Your task to perform on an android device: Open the stopwatch Image 0: 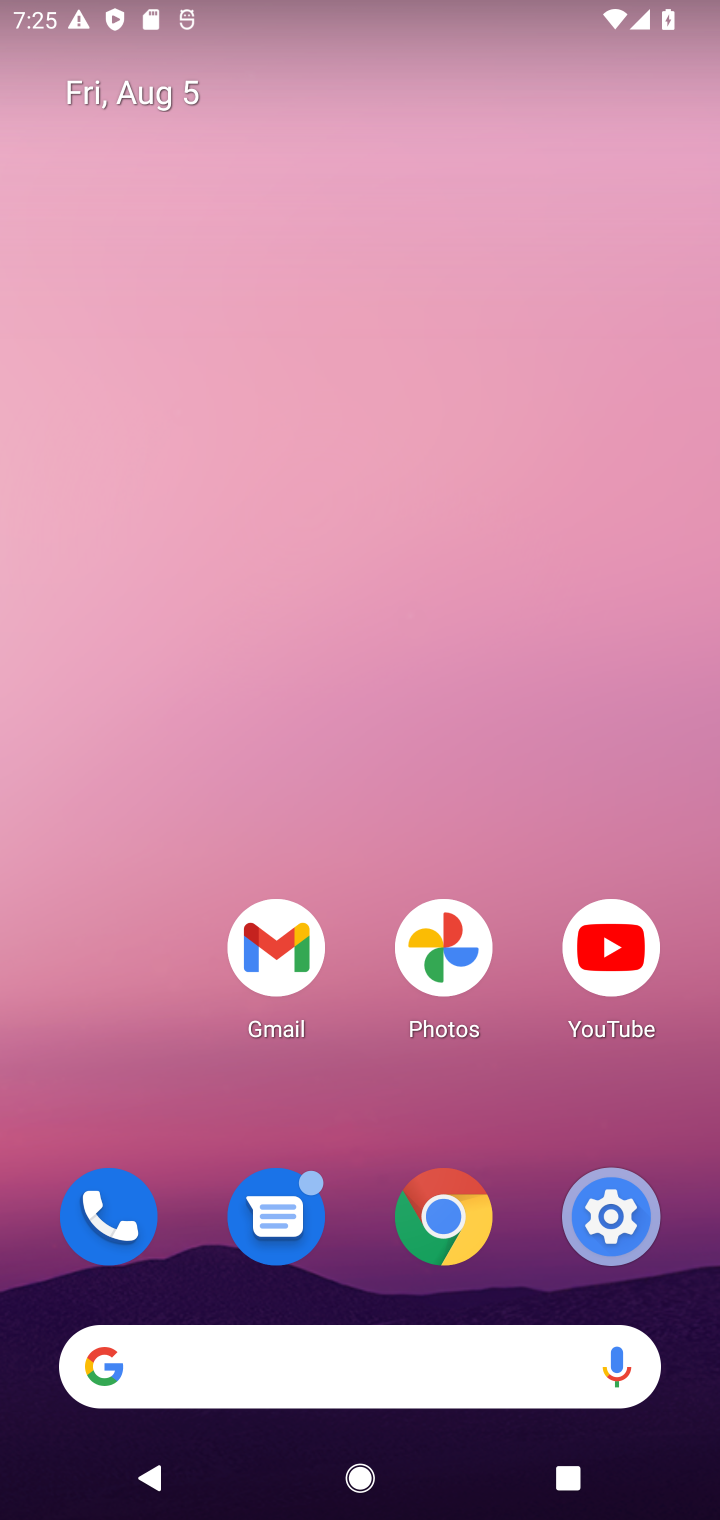
Step 0: drag from (366, 1112) to (326, 272)
Your task to perform on an android device: Open the stopwatch Image 1: 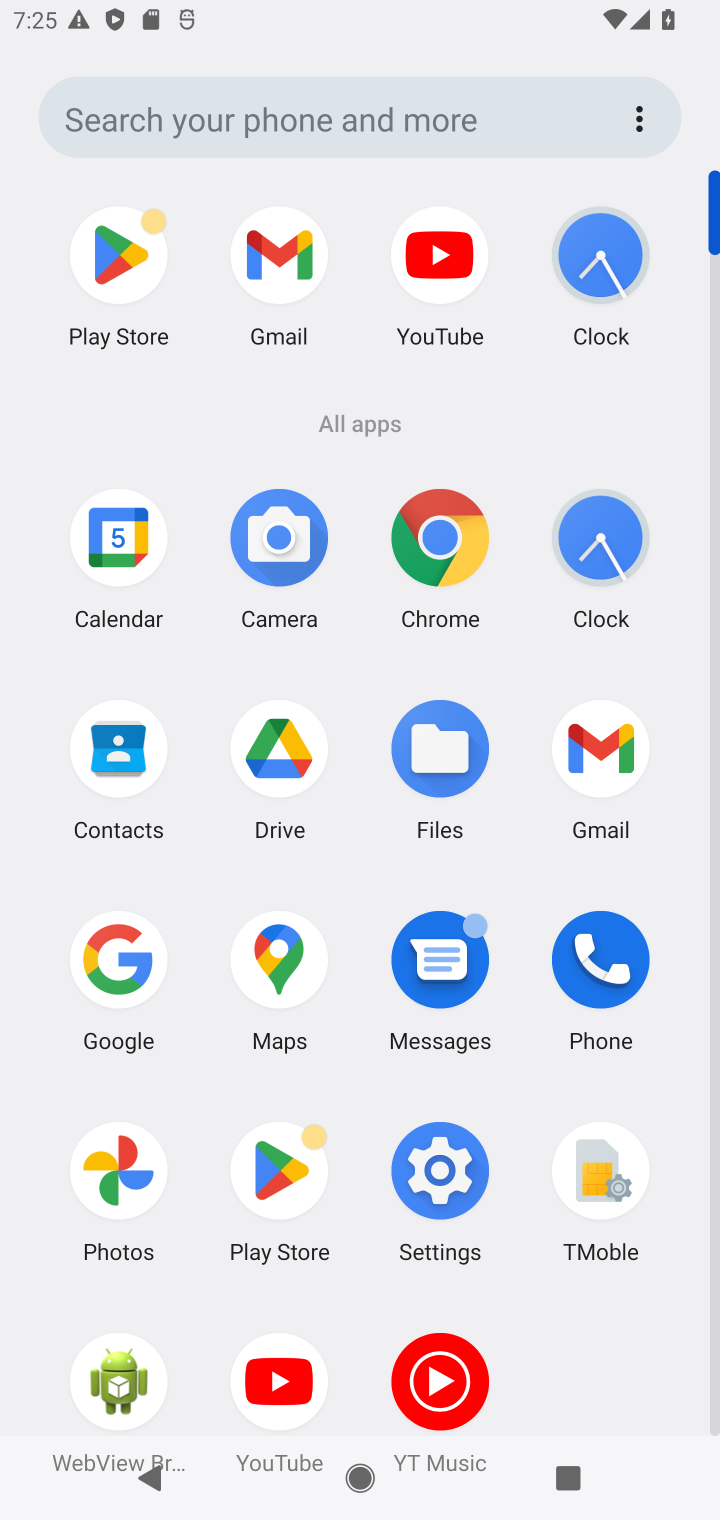
Step 1: click (598, 525)
Your task to perform on an android device: Open the stopwatch Image 2: 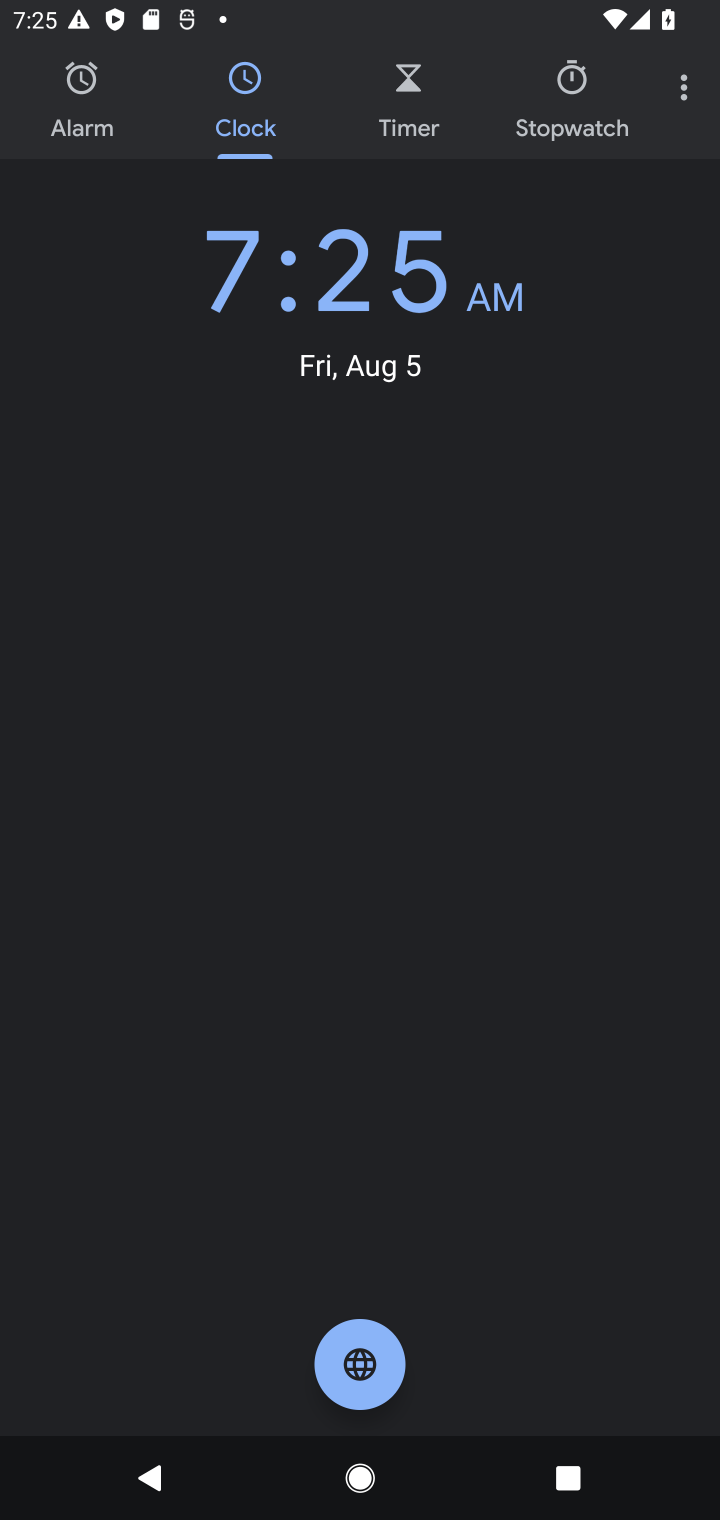
Step 2: click (571, 96)
Your task to perform on an android device: Open the stopwatch Image 3: 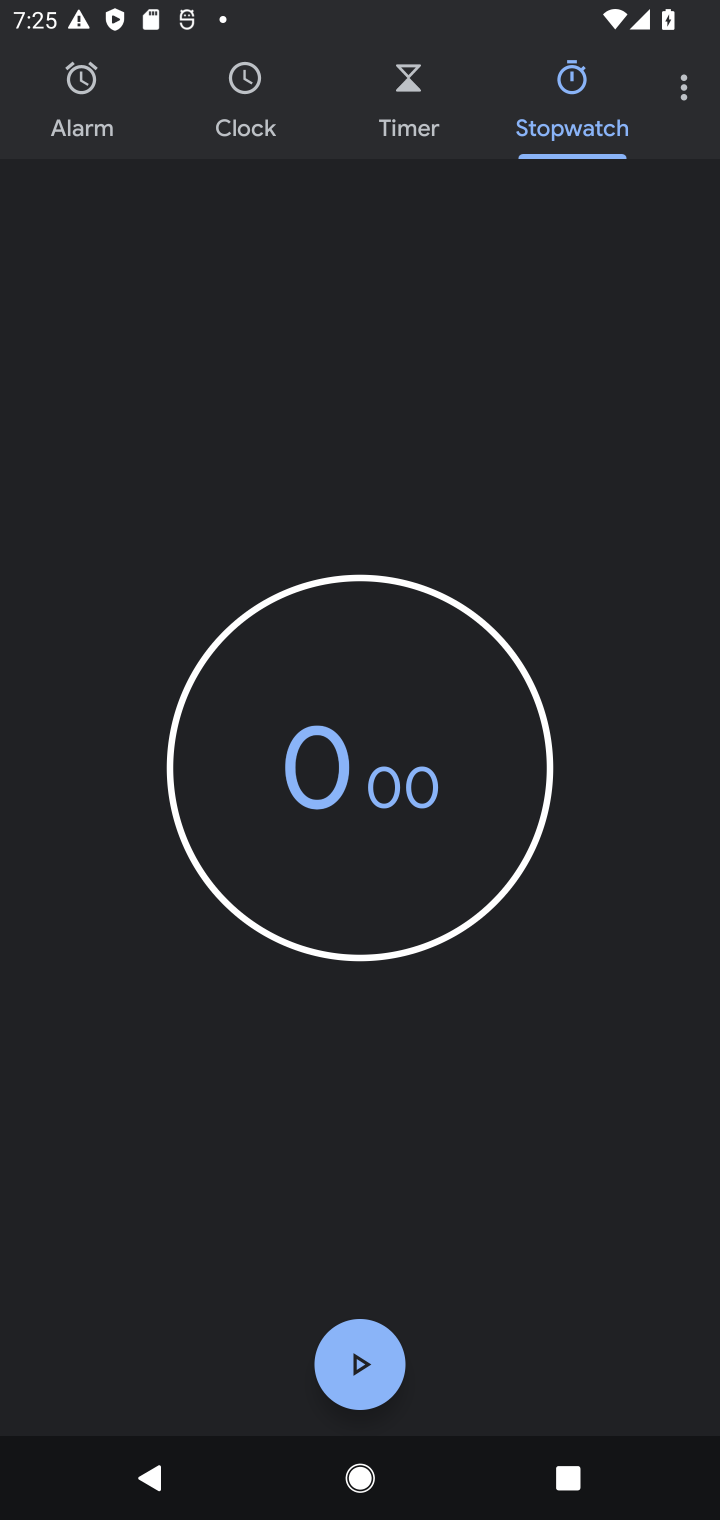
Step 3: task complete